Your task to perform on an android device: turn off data saver in the chrome app Image 0: 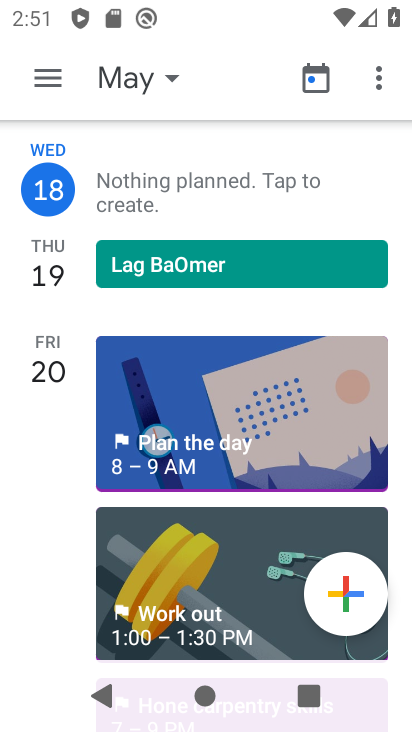
Step 0: press home button
Your task to perform on an android device: turn off data saver in the chrome app Image 1: 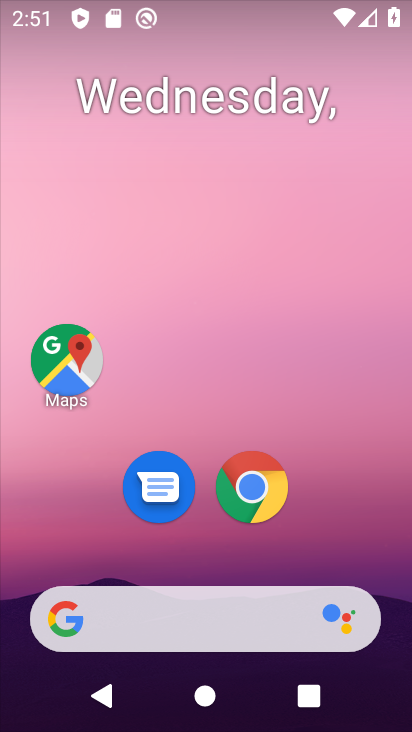
Step 1: drag from (355, 535) to (353, 167)
Your task to perform on an android device: turn off data saver in the chrome app Image 2: 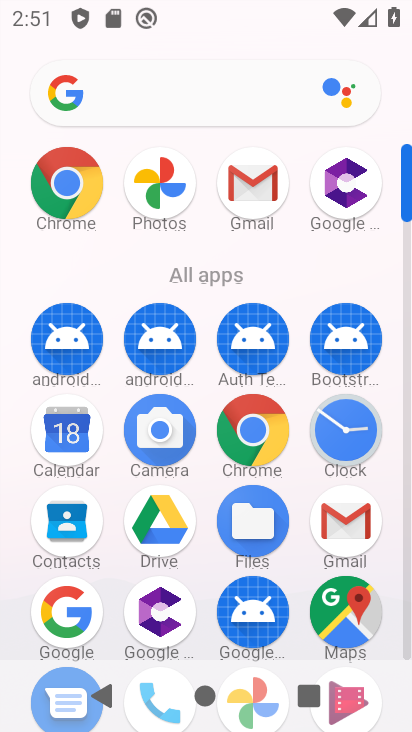
Step 2: click (268, 449)
Your task to perform on an android device: turn off data saver in the chrome app Image 3: 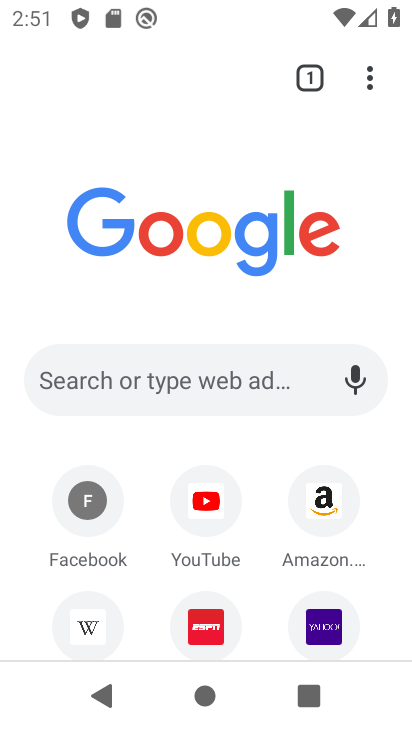
Step 3: click (370, 90)
Your task to perform on an android device: turn off data saver in the chrome app Image 4: 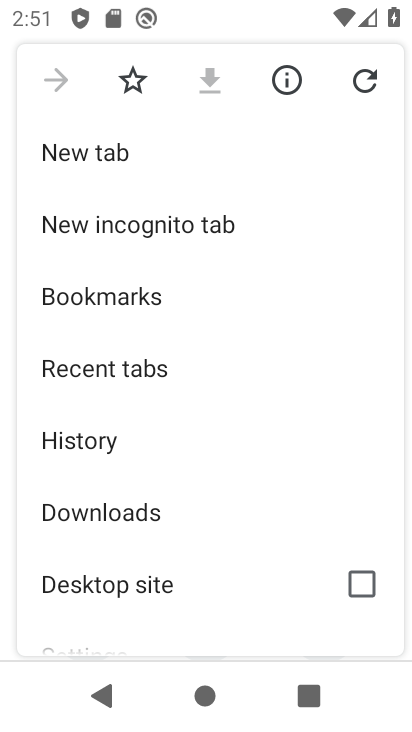
Step 4: drag from (271, 524) to (281, 389)
Your task to perform on an android device: turn off data saver in the chrome app Image 5: 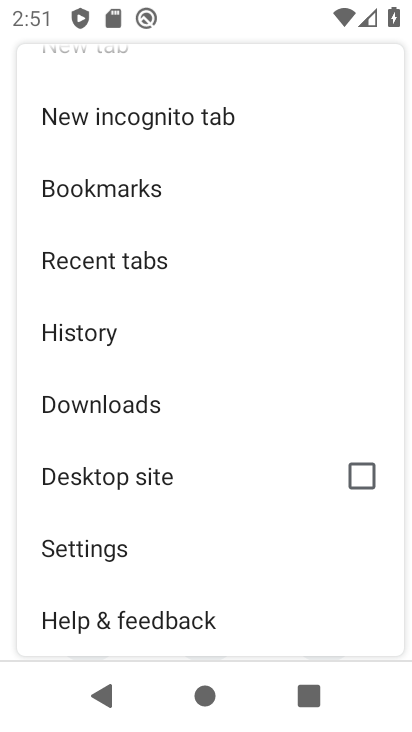
Step 5: drag from (255, 557) to (266, 423)
Your task to perform on an android device: turn off data saver in the chrome app Image 6: 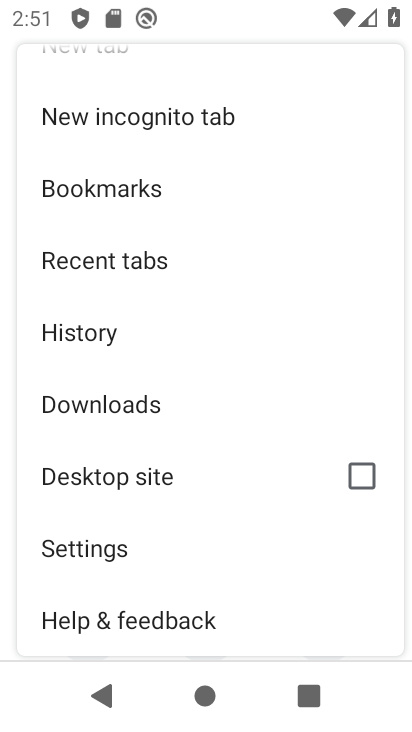
Step 6: click (111, 550)
Your task to perform on an android device: turn off data saver in the chrome app Image 7: 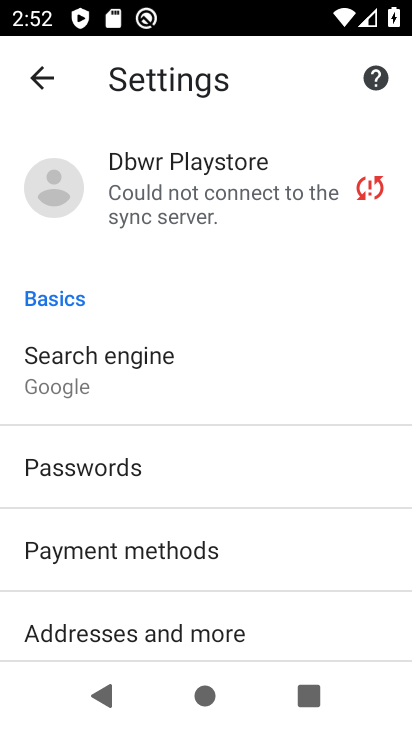
Step 7: drag from (326, 611) to (347, 477)
Your task to perform on an android device: turn off data saver in the chrome app Image 8: 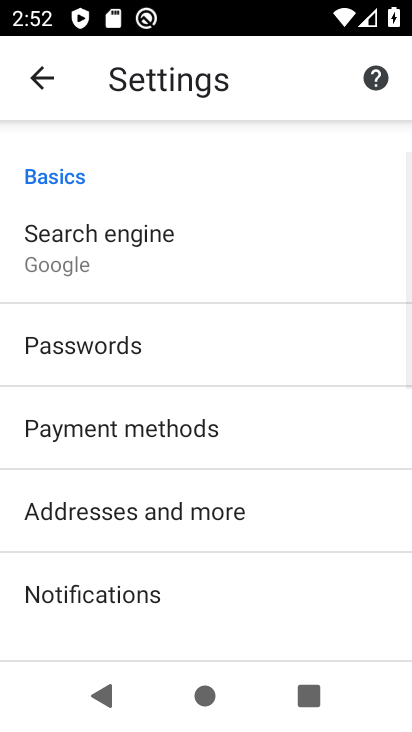
Step 8: drag from (324, 618) to (333, 406)
Your task to perform on an android device: turn off data saver in the chrome app Image 9: 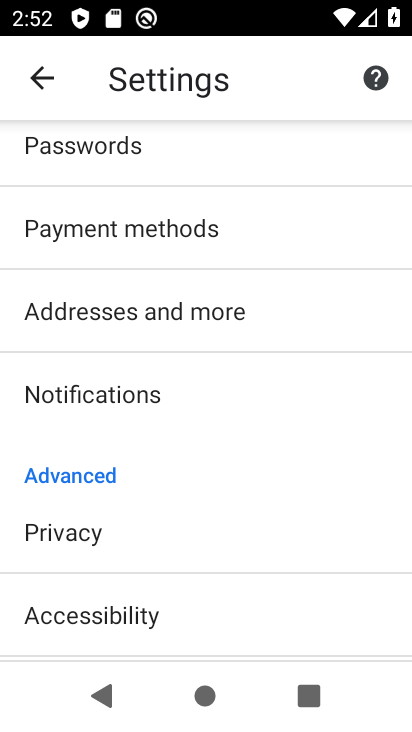
Step 9: drag from (301, 549) to (312, 380)
Your task to perform on an android device: turn off data saver in the chrome app Image 10: 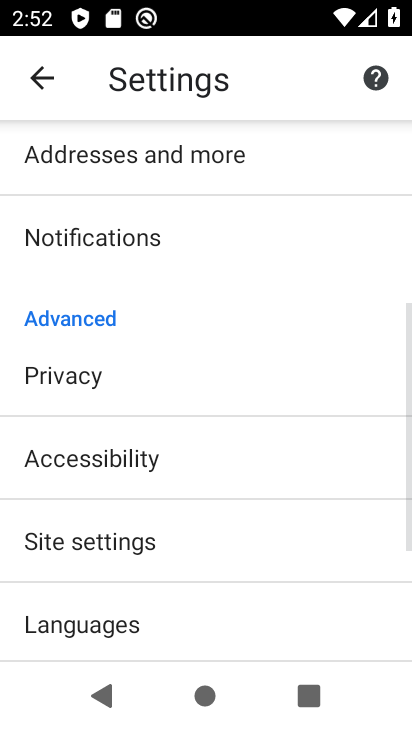
Step 10: drag from (295, 586) to (299, 427)
Your task to perform on an android device: turn off data saver in the chrome app Image 11: 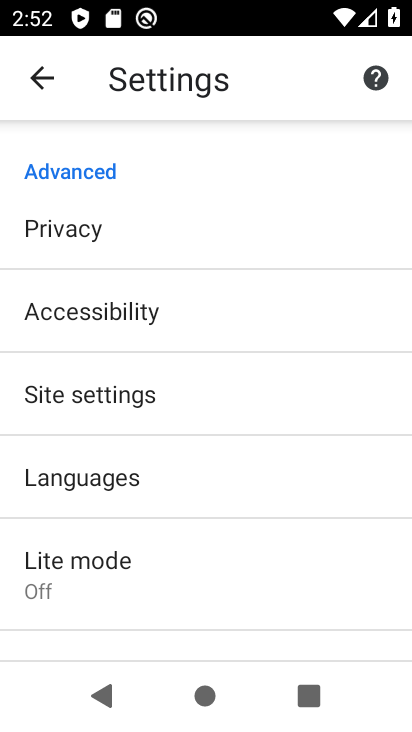
Step 11: click (207, 572)
Your task to perform on an android device: turn off data saver in the chrome app Image 12: 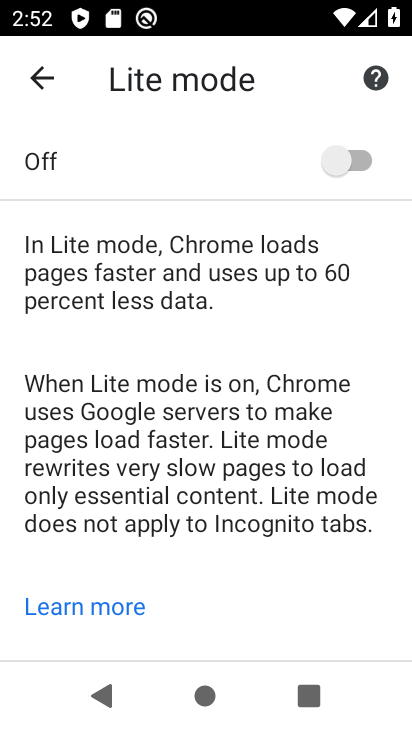
Step 12: task complete